Your task to perform on an android device: Go to sound settings Image 0: 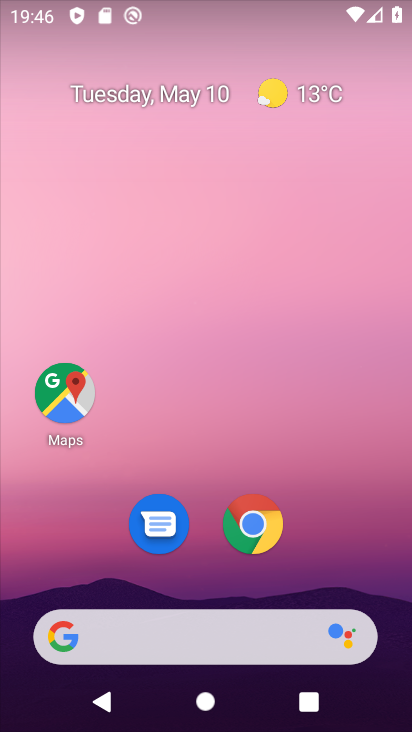
Step 0: drag from (333, 548) to (322, 24)
Your task to perform on an android device: Go to sound settings Image 1: 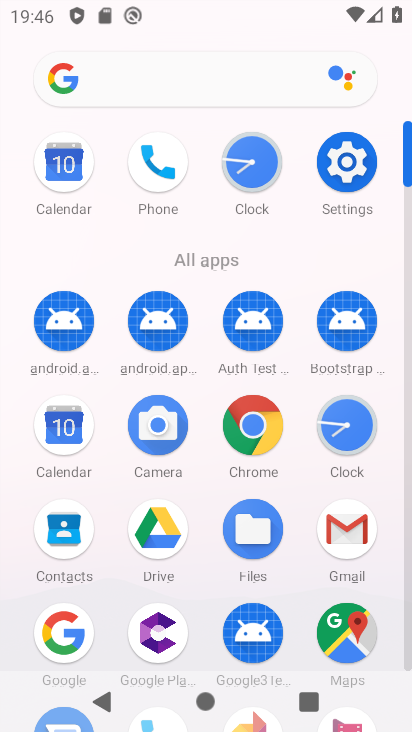
Step 1: click (348, 156)
Your task to perform on an android device: Go to sound settings Image 2: 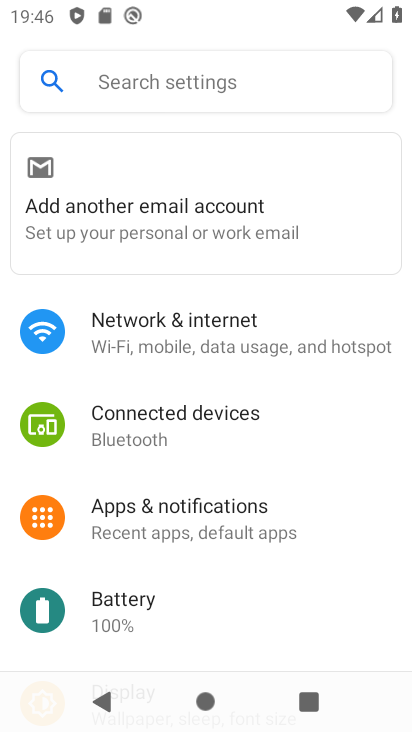
Step 2: drag from (176, 576) to (233, 179)
Your task to perform on an android device: Go to sound settings Image 3: 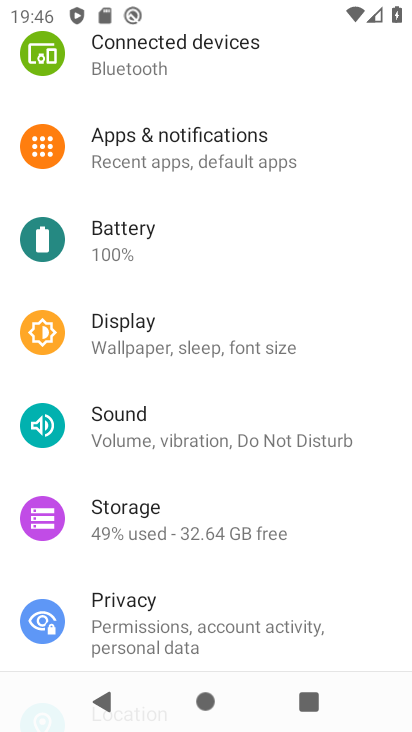
Step 3: click (209, 426)
Your task to perform on an android device: Go to sound settings Image 4: 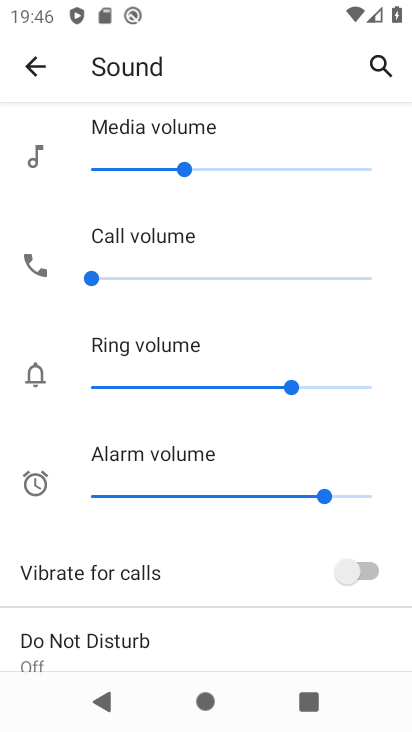
Step 4: task complete